Your task to perform on an android device: Go to battery settings Image 0: 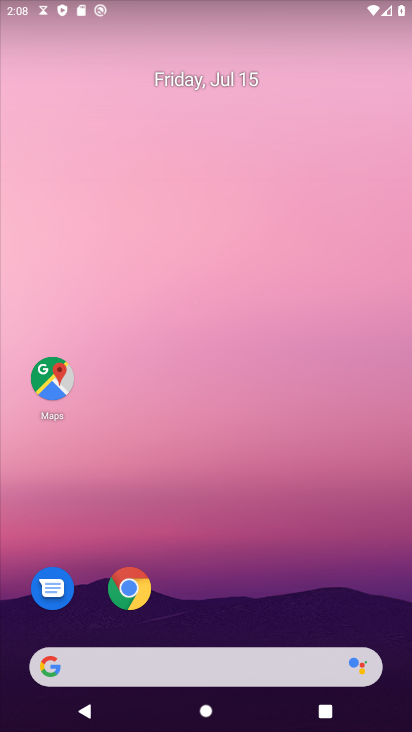
Step 0: drag from (240, 666) to (288, 133)
Your task to perform on an android device: Go to battery settings Image 1: 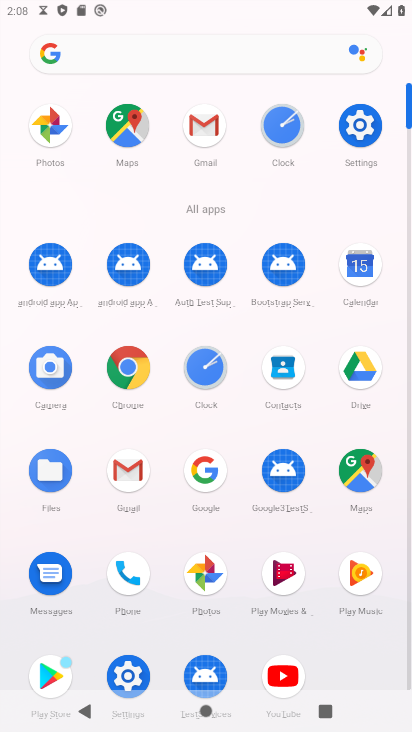
Step 1: click (364, 131)
Your task to perform on an android device: Go to battery settings Image 2: 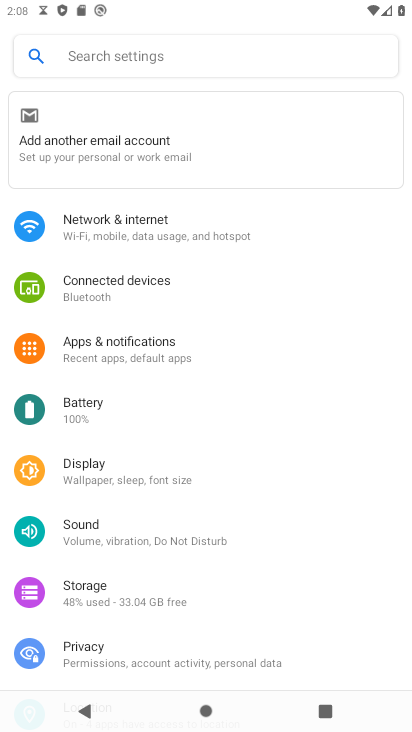
Step 2: click (92, 409)
Your task to perform on an android device: Go to battery settings Image 3: 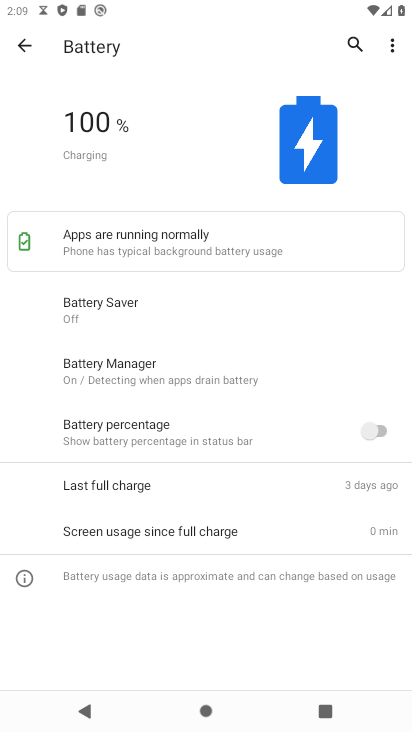
Step 3: task complete